Your task to perform on an android device: delete location history Image 0: 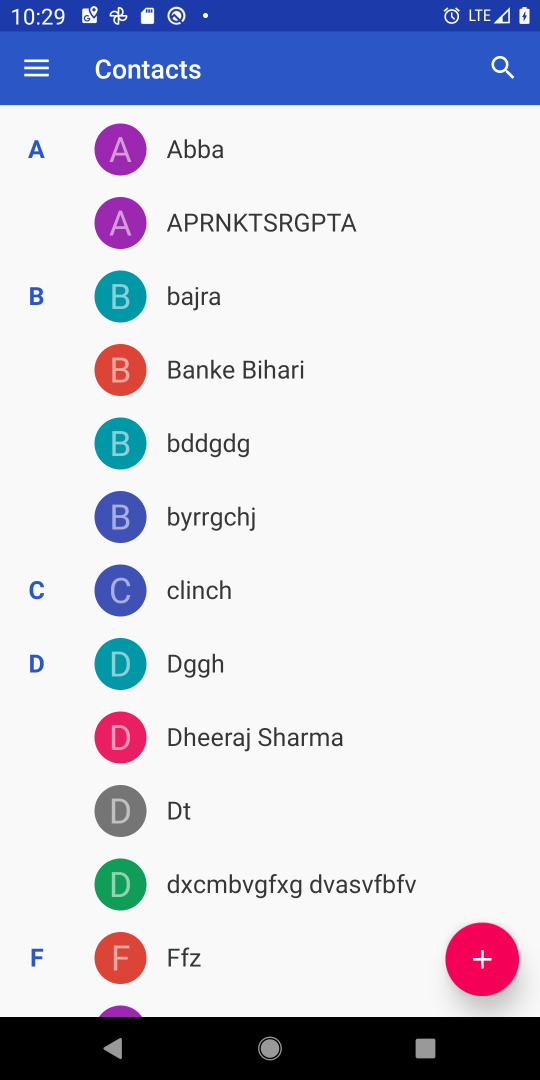
Step 0: press home button
Your task to perform on an android device: delete location history Image 1: 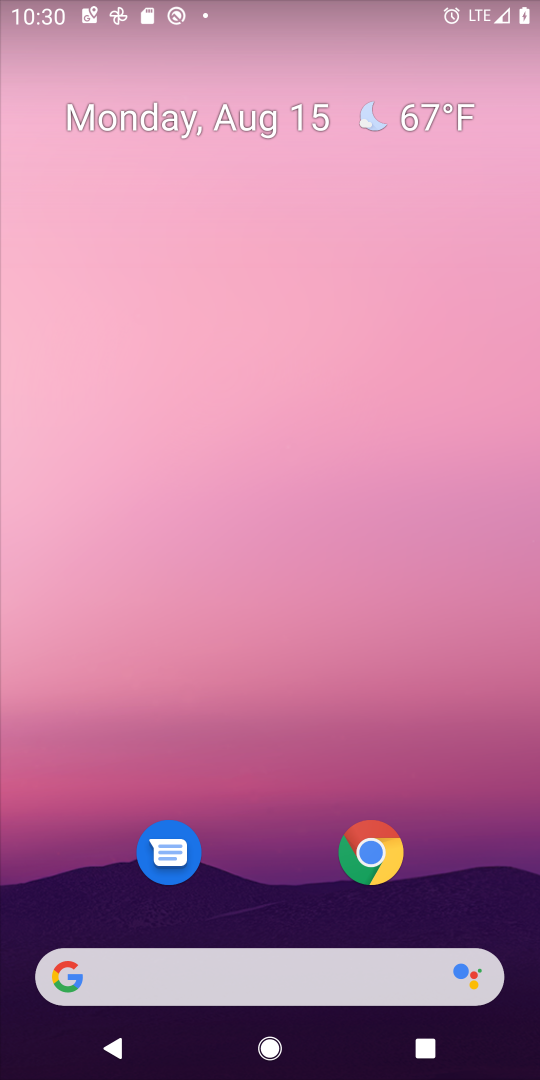
Step 1: drag from (276, 988) to (397, 165)
Your task to perform on an android device: delete location history Image 2: 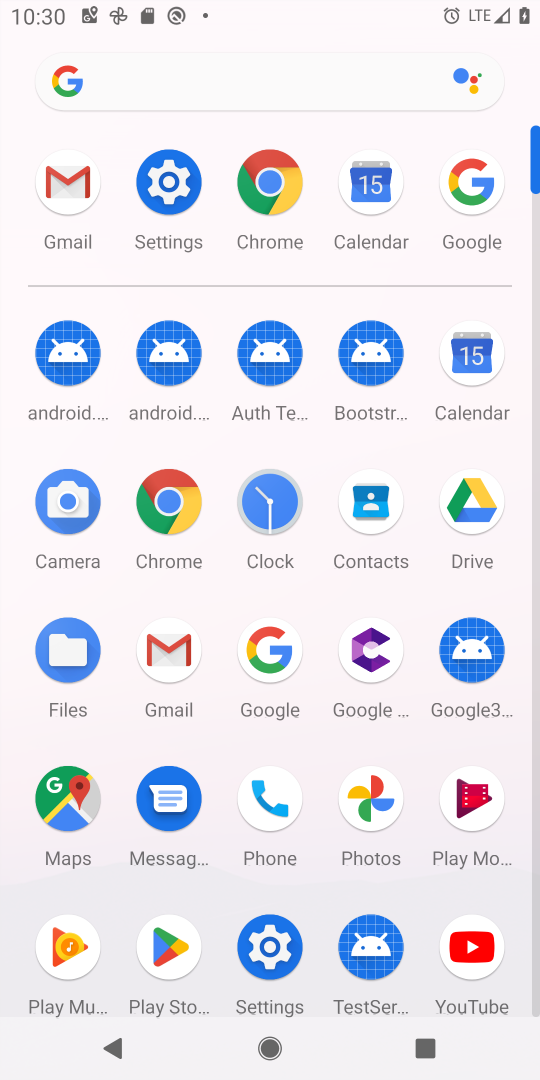
Step 2: click (65, 807)
Your task to perform on an android device: delete location history Image 3: 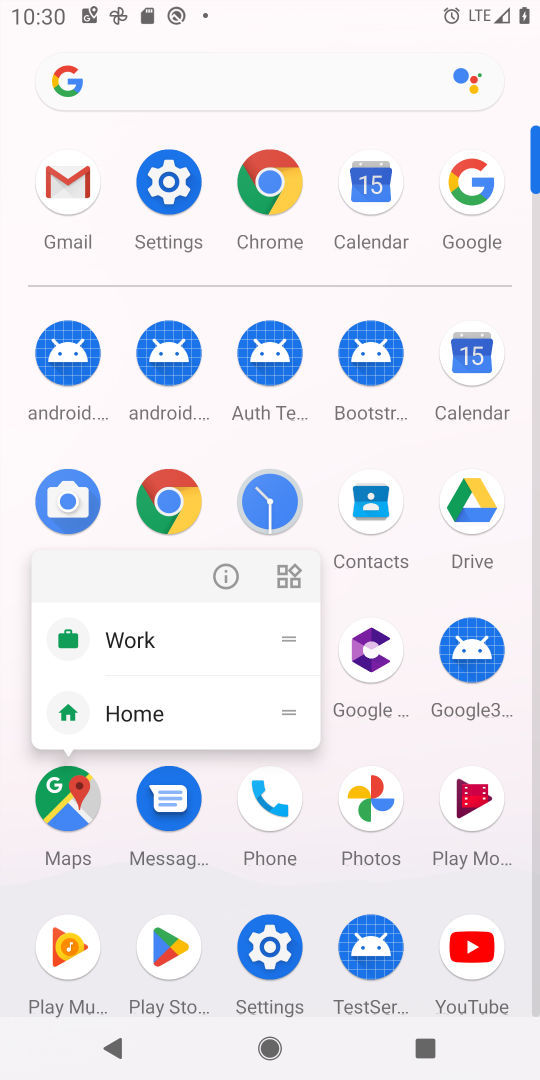
Step 3: click (65, 807)
Your task to perform on an android device: delete location history Image 4: 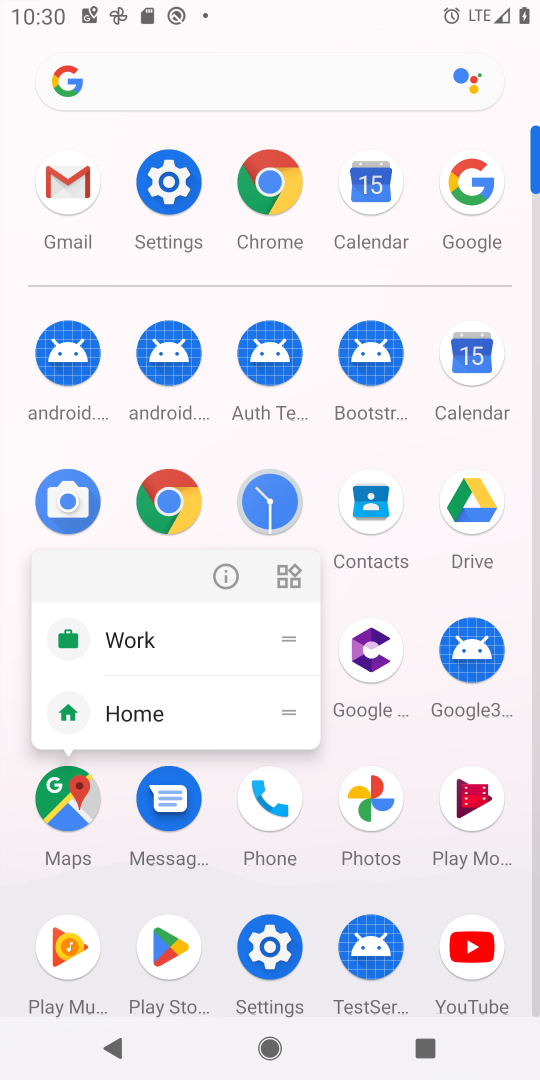
Step 4: click (65, 807)
Your task to perform on an android device: delete location history Image 5: 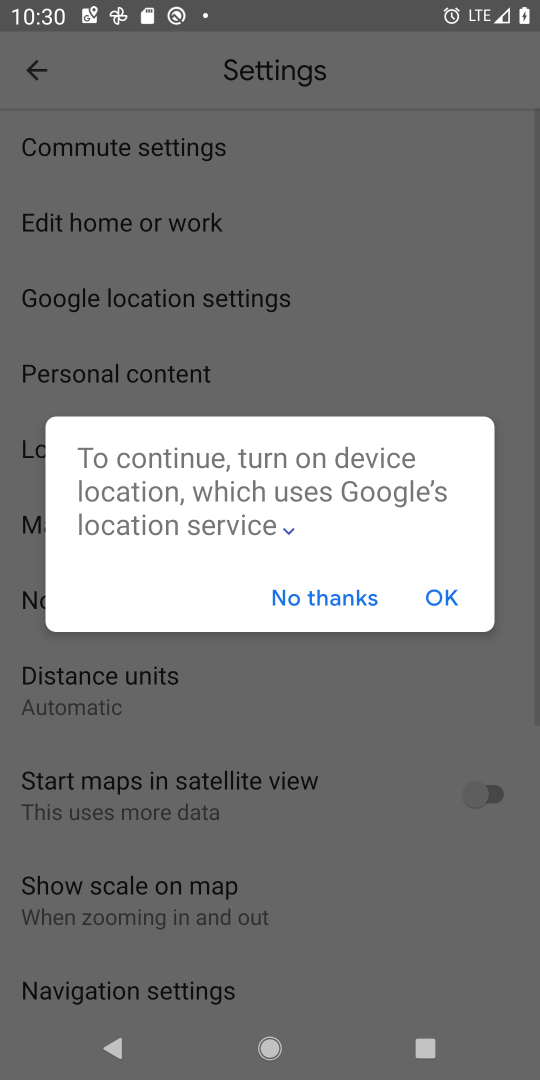
Step 5: click (346, 608)
Your task to perform on an android device: delete location history Image 6: 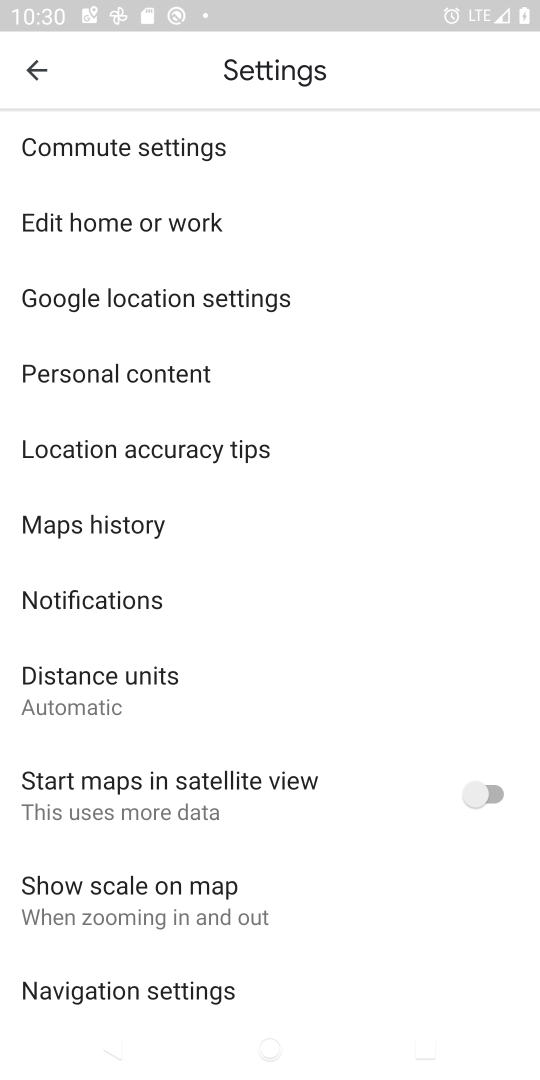
Step 6: click (192, 374)
Your task to perform on an android device: delete location history Image 7: 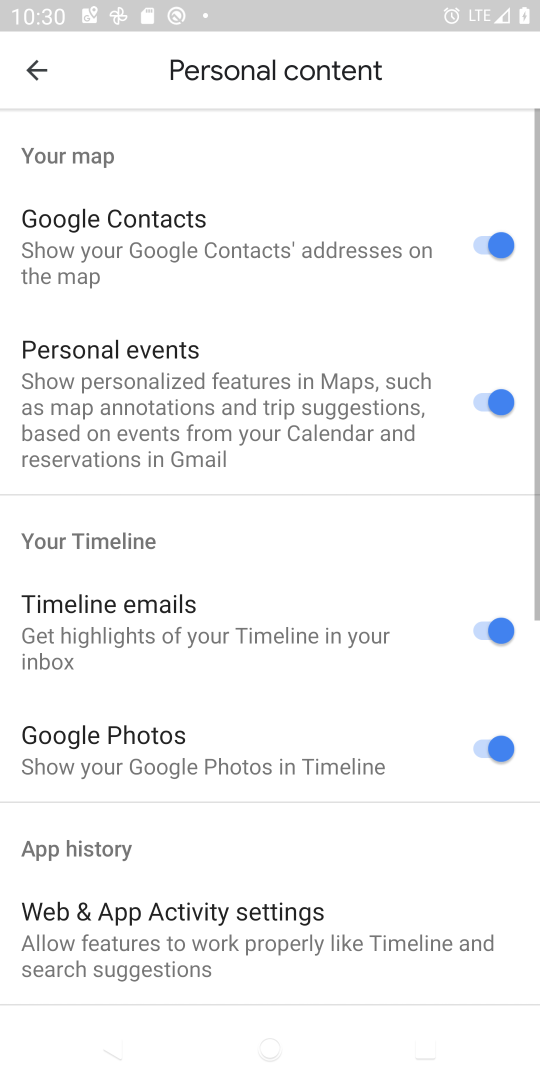
Step 7: drag from (241, 571) to (279, 298)
Your task to perform on an android device: delete location history Image 8: 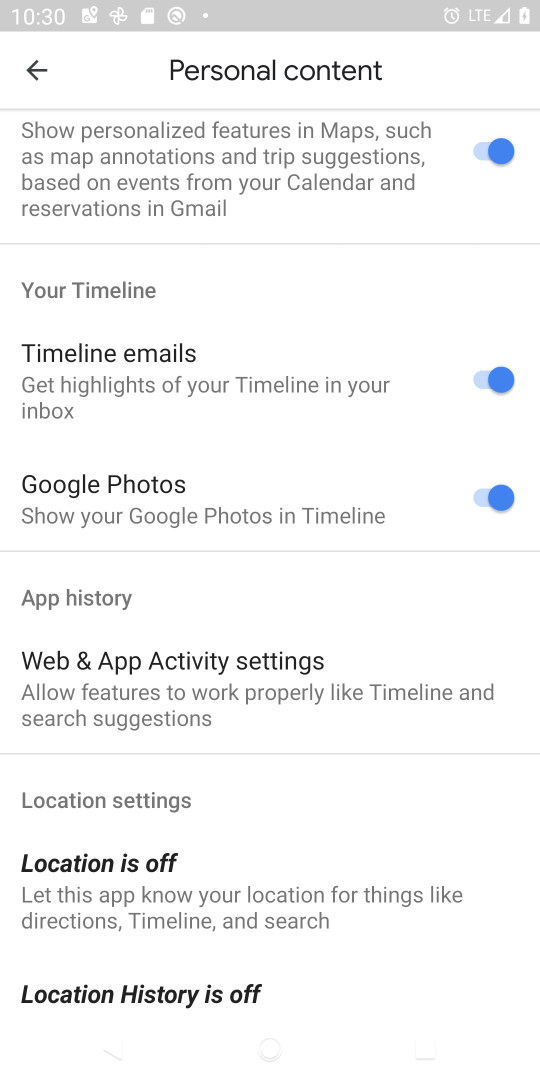
Step 8: drag from (257, 782) to (330, 514)
Your task to perform on an android device: delete location history Image 9: 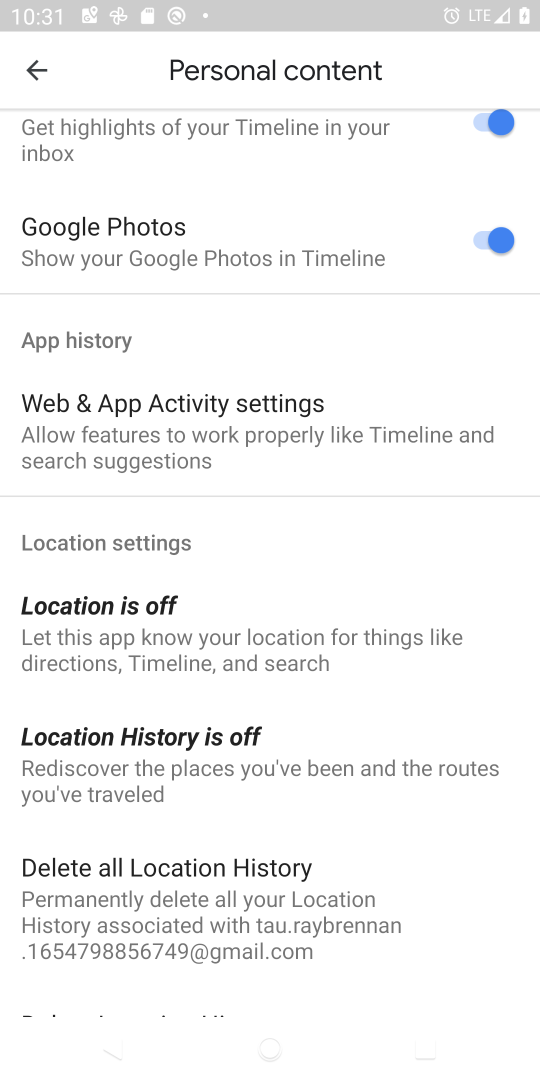
Step 9: click (158, 867)
Your task to perform on an android device: delete location history Image 10: 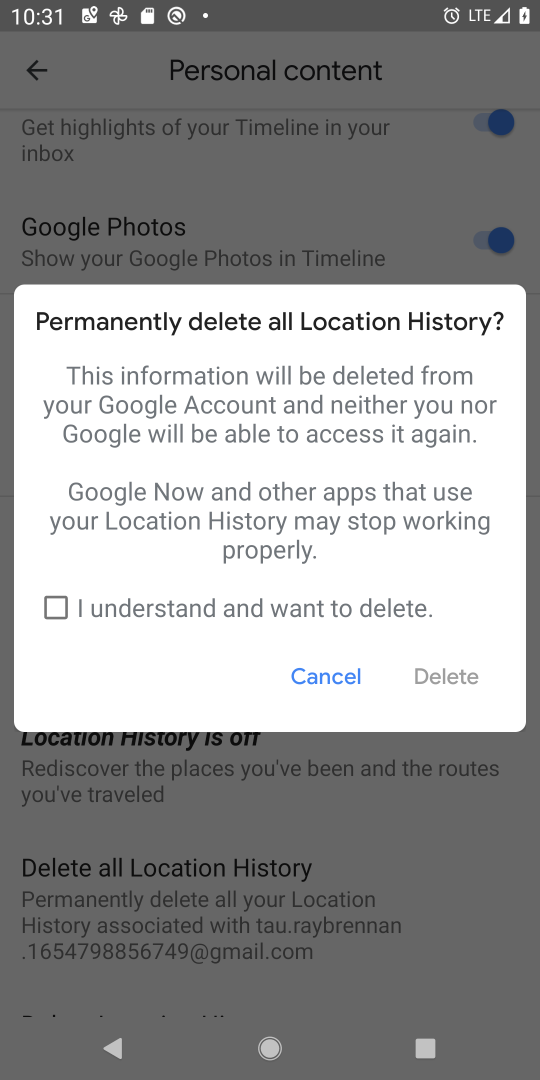
Step 10: click (49, 605)
Your task to perform on an android device: delete location history Image 11: 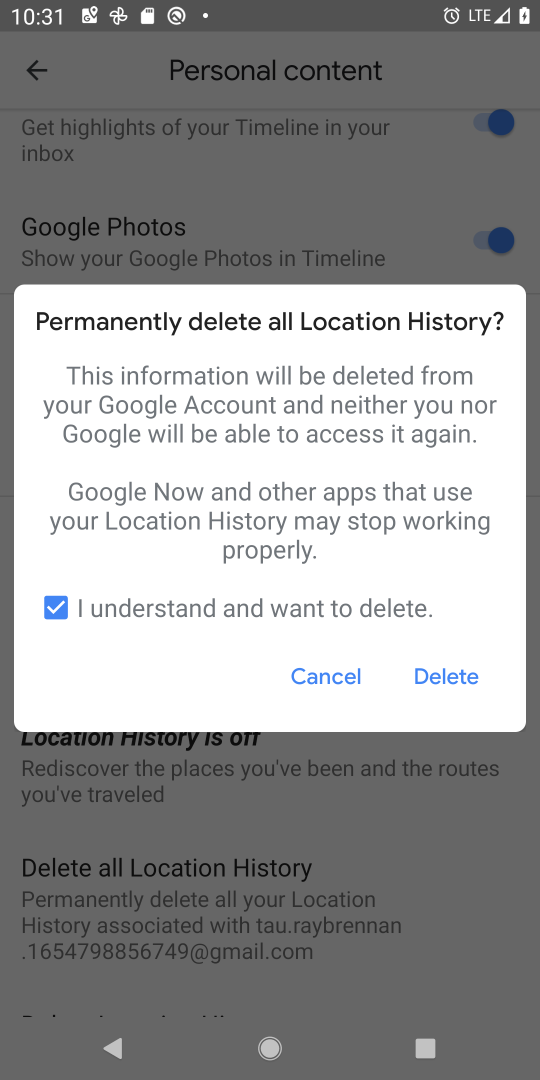
Step 11: click (453, 679)
Your task to perform on an android device: delete location history Image 12: 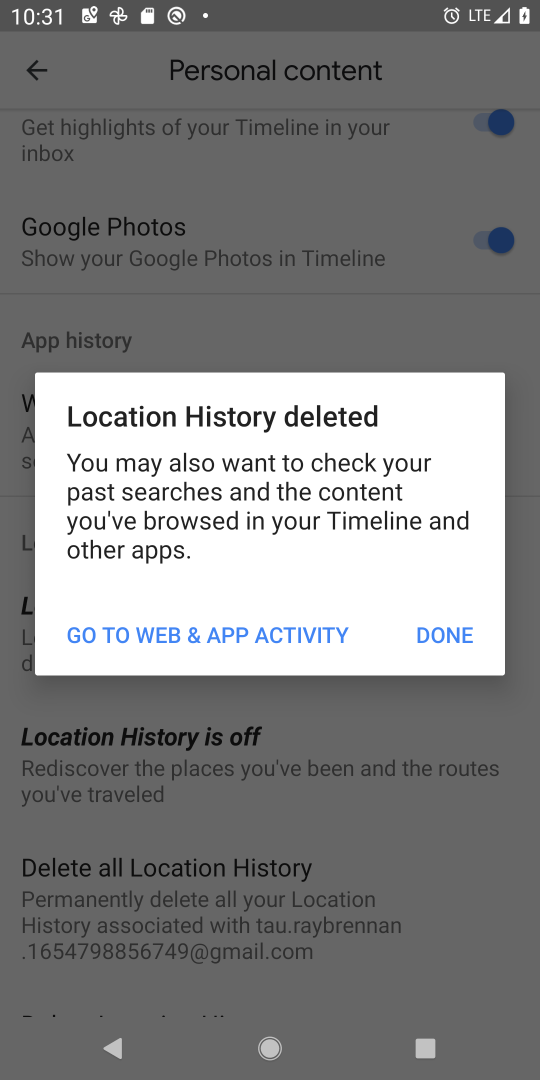
Step 12: click (449, 639)
Your task to perform on an android device: delete location history Image 13: 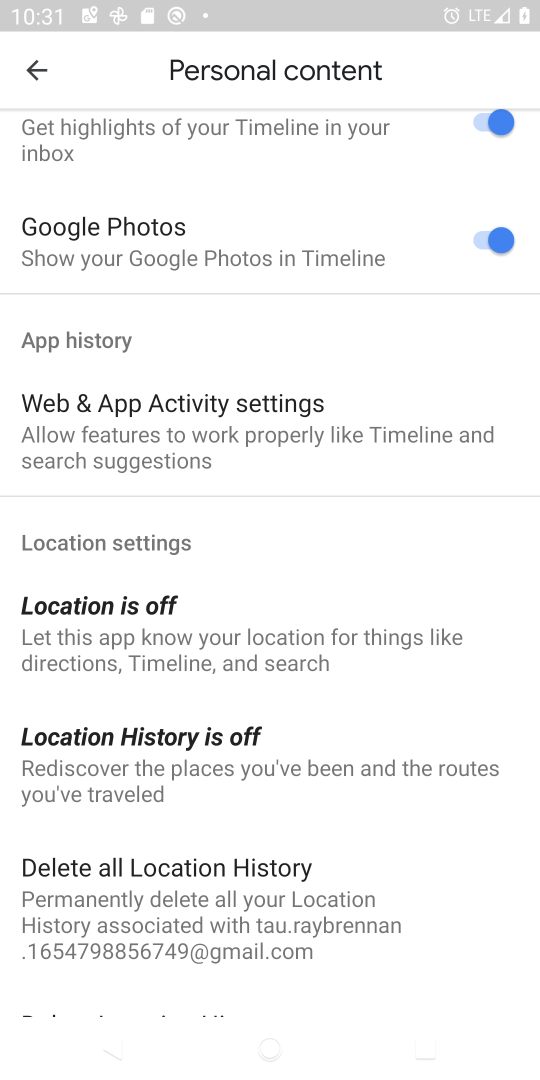
Step 13: task complete